Your task to perform on an android device: Open the map Image 0: 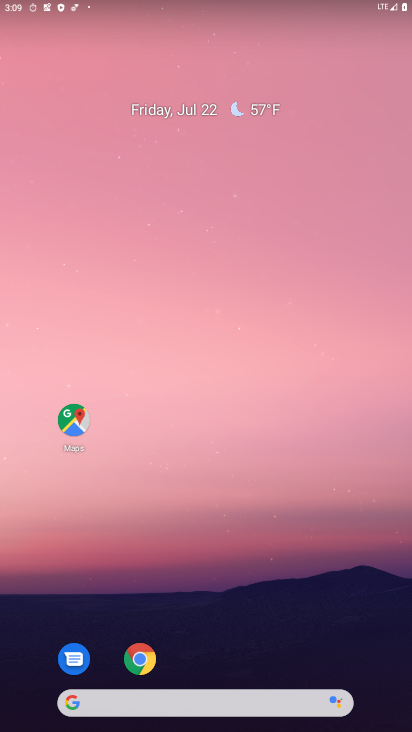
Step 0: click (81, 410)
Your task to perform on an android device: Open the map Image 1: 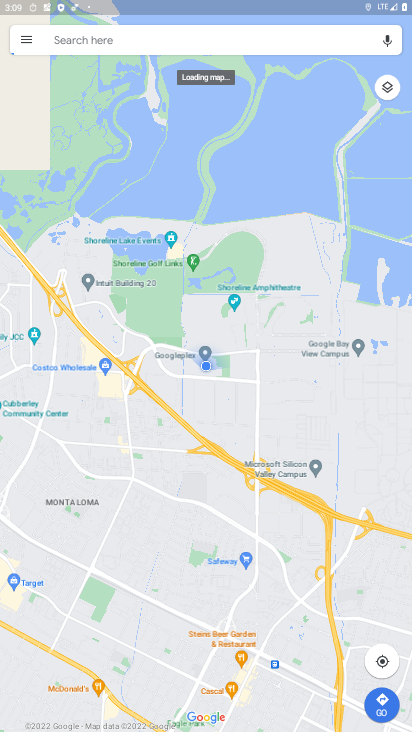
Step 1: task complete